Your task to perform on an android device: check storage Image 0: 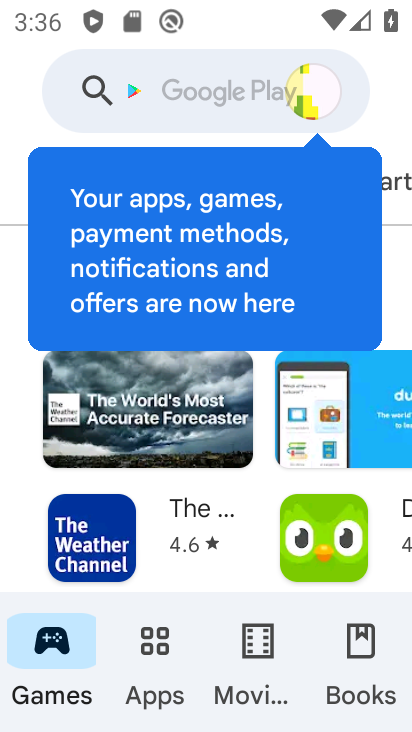
Step 0: press home button
Your task to perform on an android device: check storage Image 1: 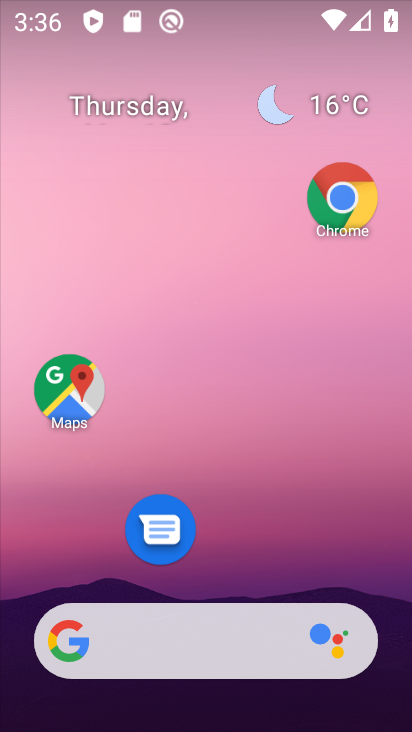
Step 1: drag from (195, 620) to (277, 85)
Your task to perform on an android device: check storage Image 2: 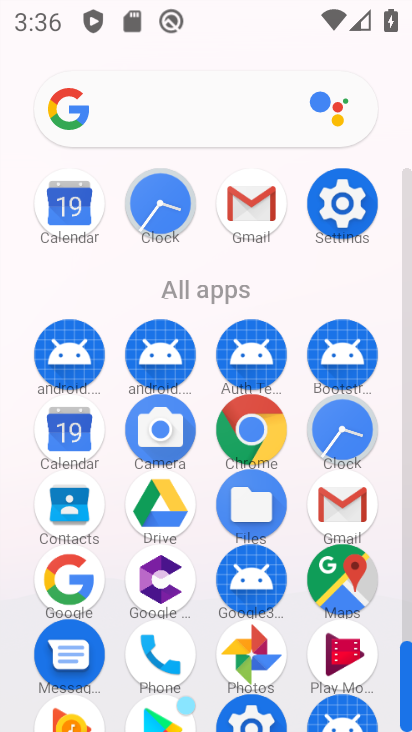
Step 2: click (323, 197)
Your task to perform on an android device: check storage Image 3: 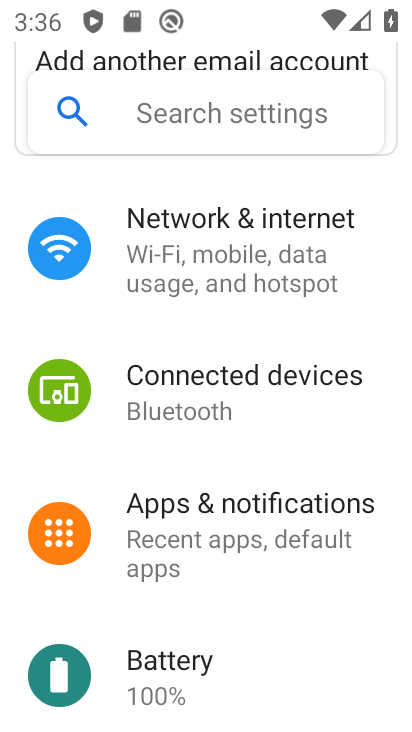
Step 3: drag from (221, 547) to (184, 232)
Your task to perform on an android device: check storage Image 4: 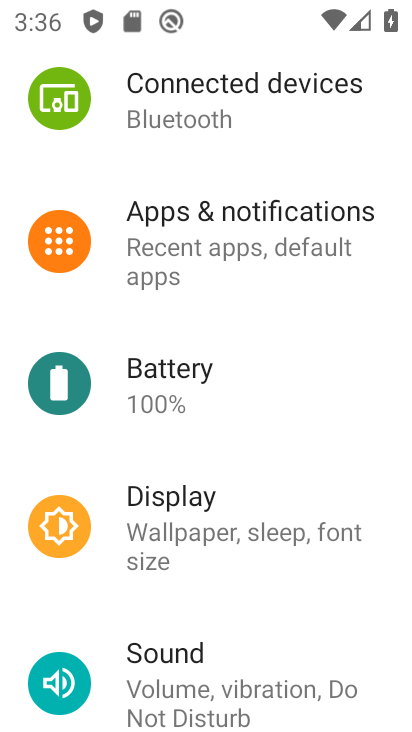
Step 4: drag from (193, 615) to (127, 179)
Your task to perform on an android device: check storage Image 5: 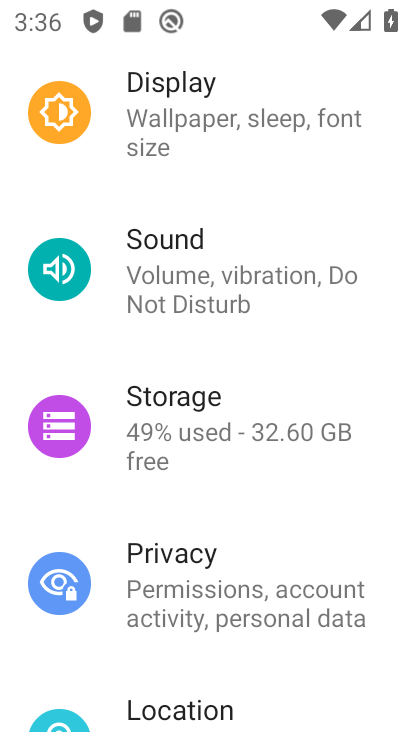
Step 5: click (145, 410)
Your task to perform on an android device: check storage Image 6: 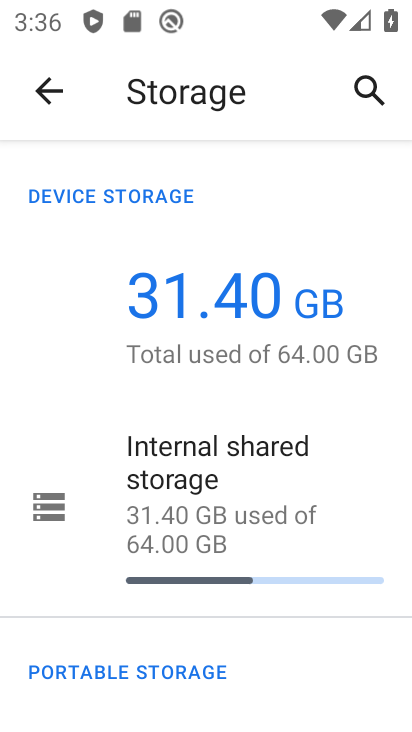
Step 6: task complete